Your task to perform on an android device: Add "corsair k70" to the cart on ebay.com, then select checkout. Image 0: 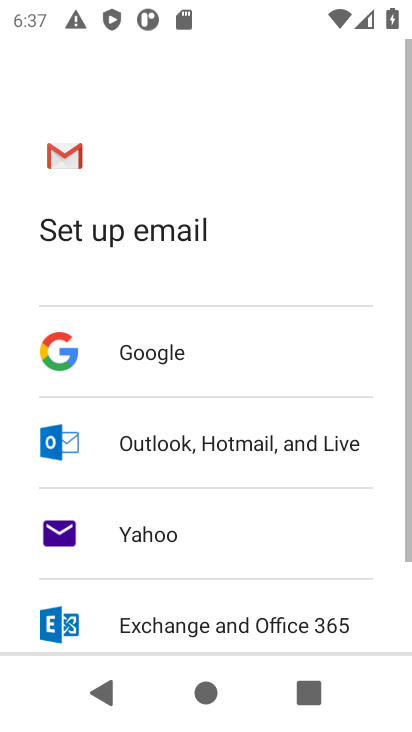
Step 0: press home button
Your task to perform on an android device: Add "corsair k70" to the cart on ebay.com, then select checkout. Image 1: 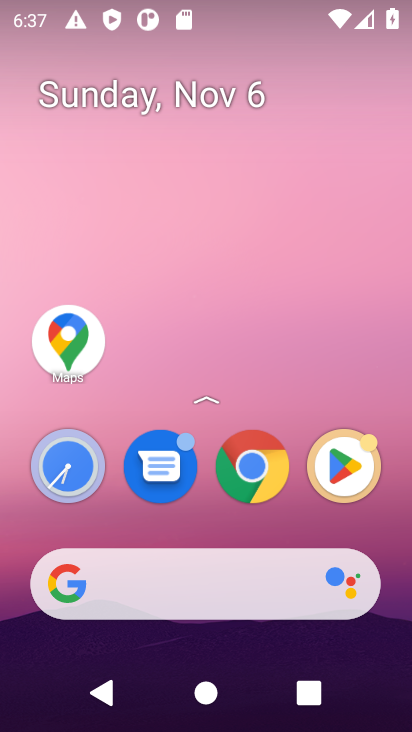
Step 1: click (255, 472)
Your task to perform on an android device: Add "corsair k70" to the cart on ebay.com, then select checkout. Image 2: 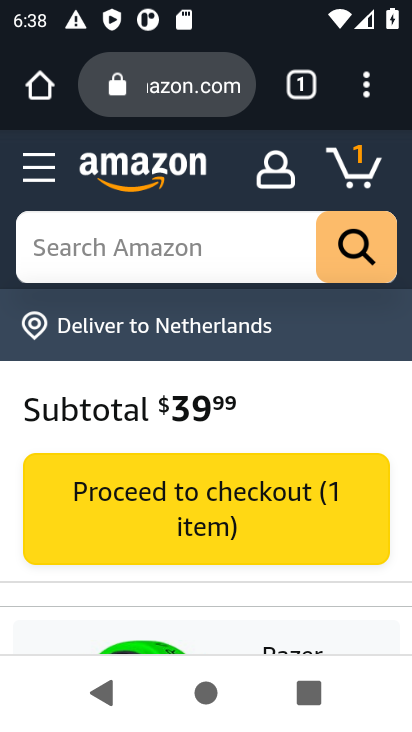
Step 2: click (163, 236)
Your task to perform on an android device: Add "corsair k70" to the cart on ebay.com, then select checkout. Image 3: 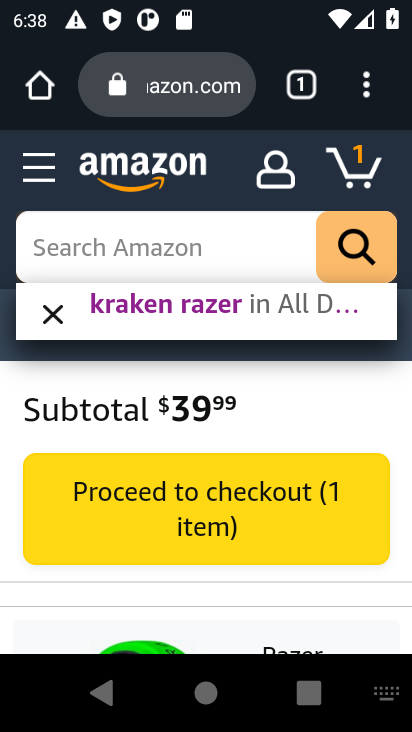
Step 3: type "corsair k70"
Your task to perform on an android device: Add "corsair k70" to the cart on ebay.com, then select checkout. Image 4: 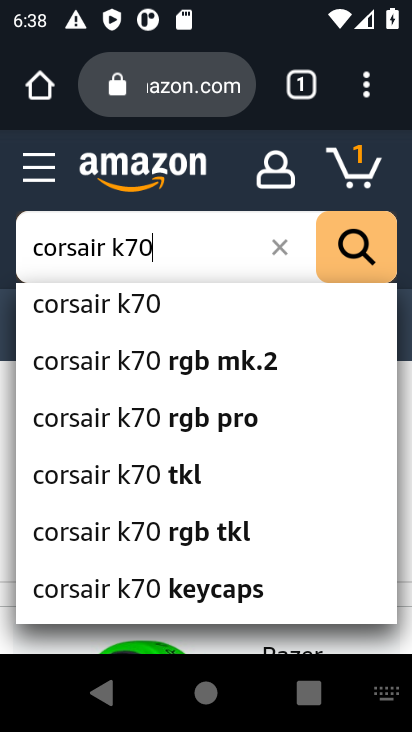
Step 4: type ""
Your task to perform on an android device: Add "corsair k70" to the cart on ebay.com, then select checkout. Image 5: 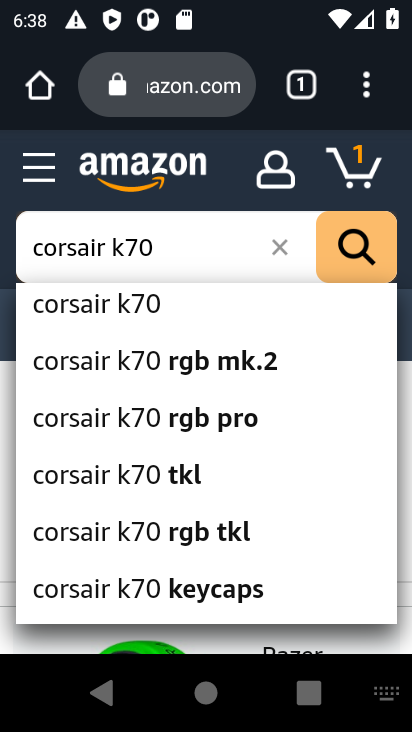
Step 5: click (115, 313)
Your task to perform on an android device: Add "corsair k70" to the cart on ebay.com, then select checkout. Image 6: 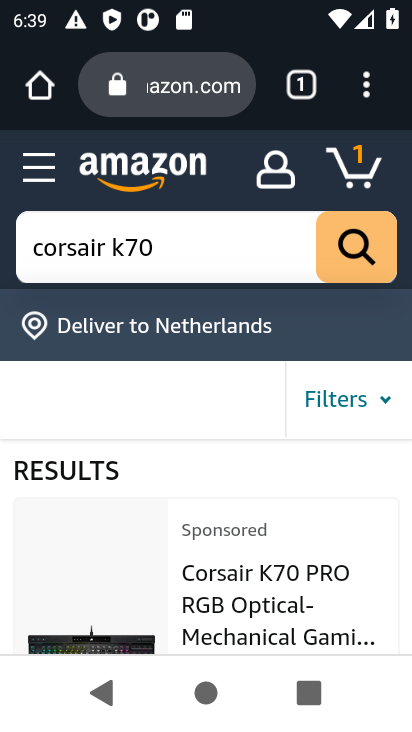
Step 6: click (271, 579)
Your task to perform on an android device: Add "corsair k70" to the cart on ebay.com, then select checkout. Image 7: 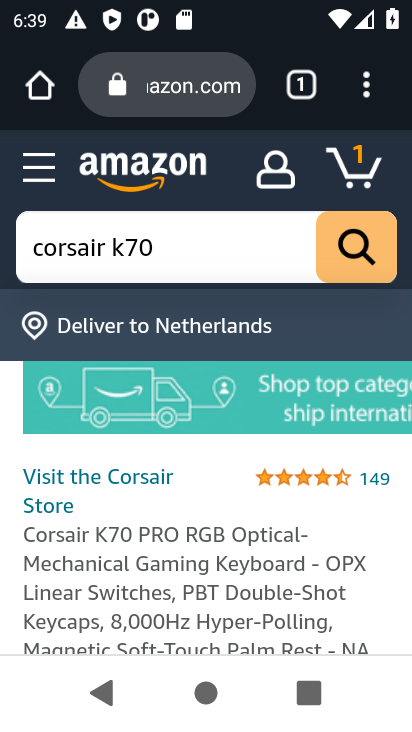
Step 7: drag from (172, 603) to (152, 367)
Your task to perform on an android device: Add "corsair k70" to the cart on ebay.com, then select checkout. Image 8: 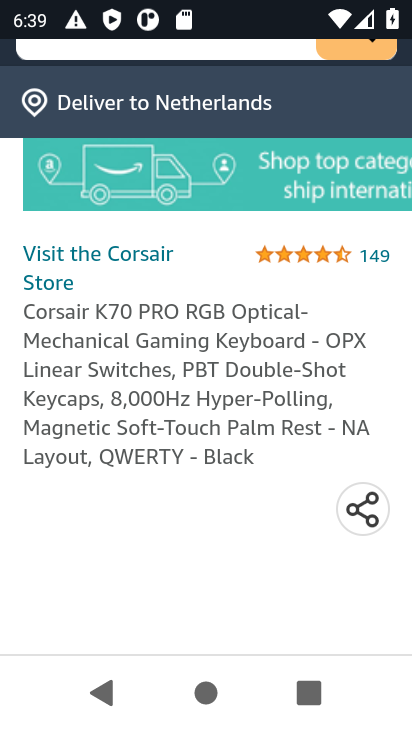
Step 8: drag from (161, 590) to (170, 344)
Your task to perform on an android device: Add "corsair k70" to the cart on ebay.com, then select checkout. Image 9: 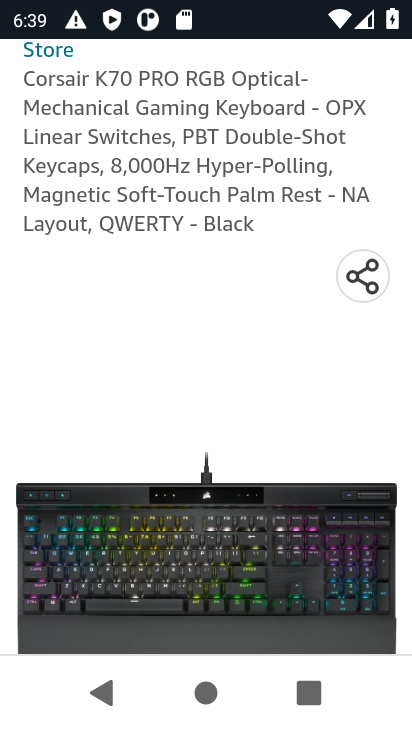
Step 9: drag from (181, 601) to (123, 248)
Your task to perform on an android device: Add "corsair k70" to the cart on ebay.com, then select checkout. Image 10: 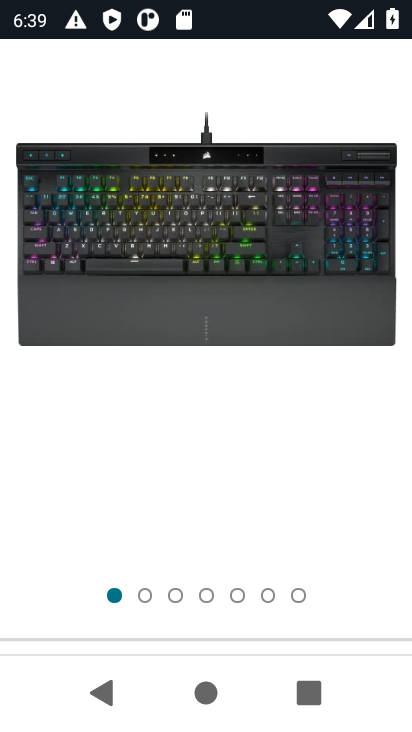
Step 10: drag from (214, 587) to (175, 339)
Your task to perform on an android device: Add "corsair k70" to the cart on ebay.com, then select checkout. Image 11: 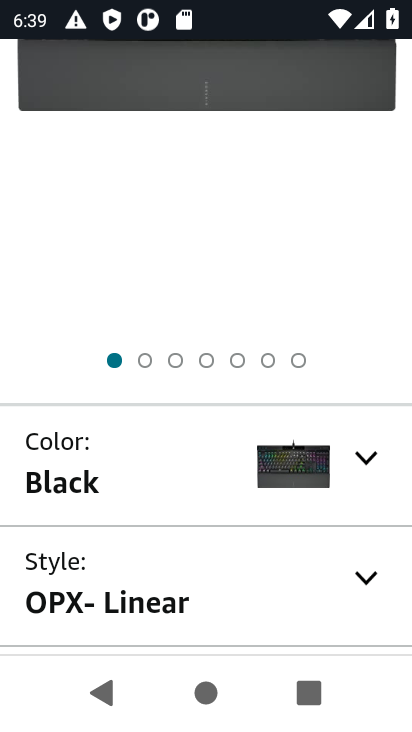
Step 11: drag from (199, 601) to (179, 296)
Your task to perform on an android device: Add "corsair k70" to the cart on ebay.com, then select checkout. Image 12: 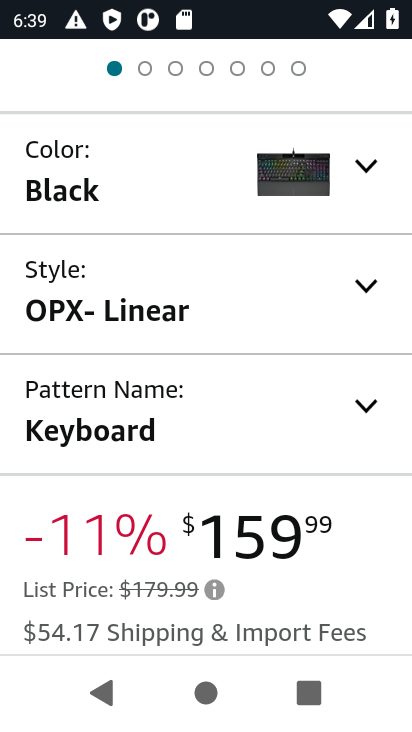
Step 12: drag from (193, 607) to (171, 332)
Your task to perform on an android device: Add "corsair k70" to the cart on ebay.com, then select checkout. Image 13: 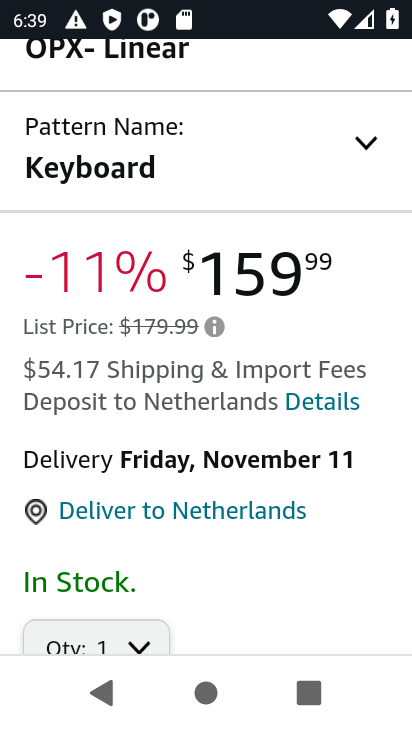
Step 13: drag from (174, 599) to (191, 237)
Your task to perform on an android device: Add "corsair k70" to the cart on ebay.com, then select checkout. Image 14: 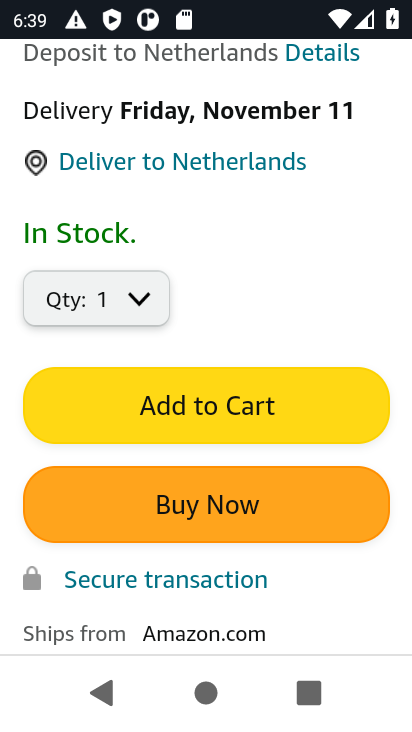
Step 14: click (203, 392)
Your task to perform on an android device: Add "corsair k70" to the cart on ebay.com, then select checkout. Image 15: 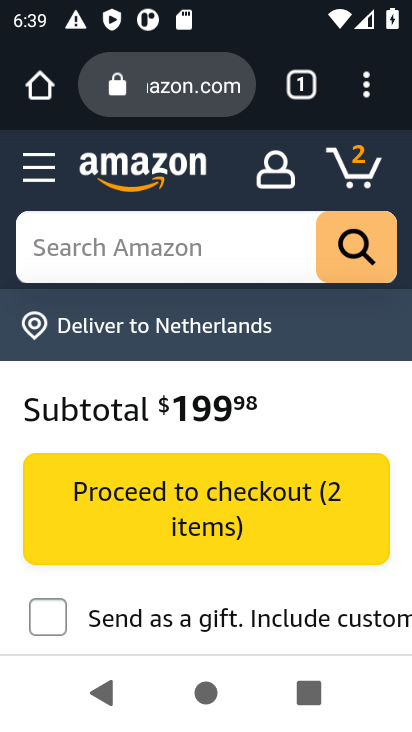
Step 15: task complete